Your task to perform on an android device: move an email to a new category in the gmail app Image 0: 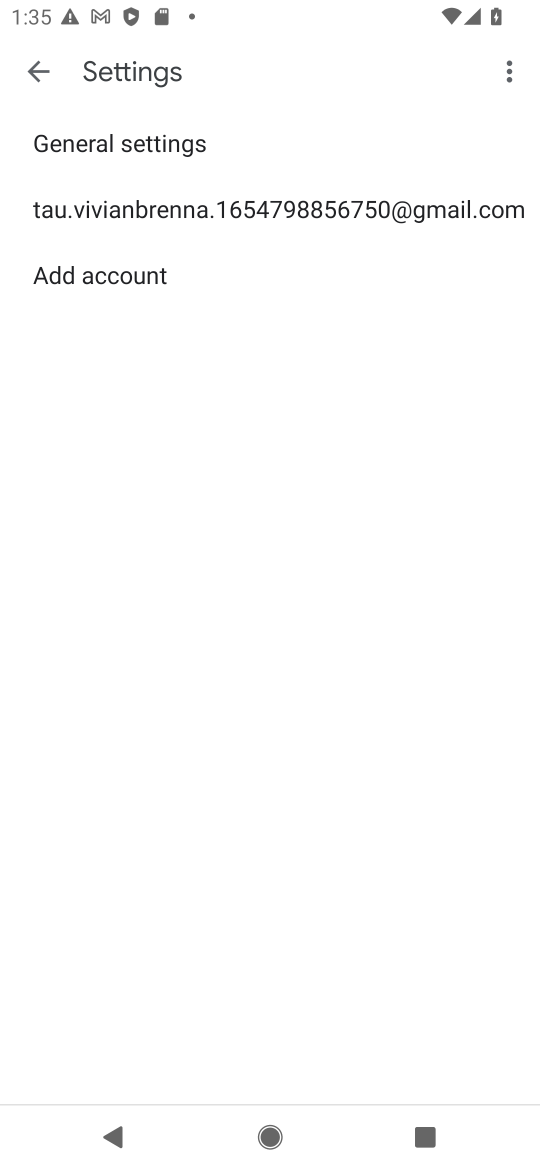
Step 0: press home button
Your task to perform on an android device: move an email to a new category in the gmail app Image 1: 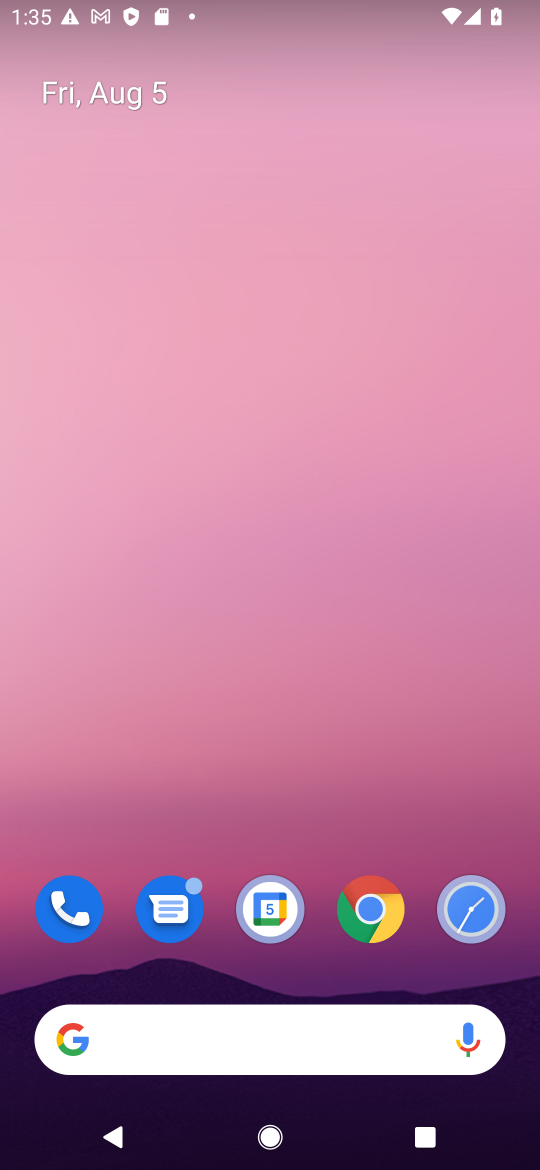
Step 1: drag from (287, 791) to (234, 32)
Your task to perform on an android device: move an email to a new category in the gmail app Image 2: 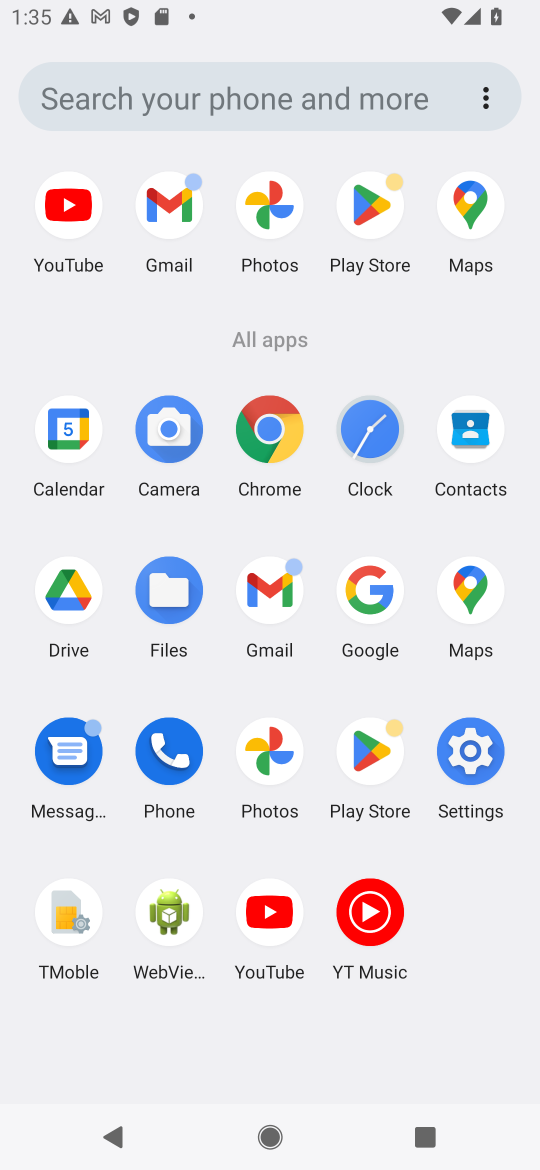
Step 2: click (180, 208)
Your task to perform on an android device: move an email to a new category in the gmail app Image 3: 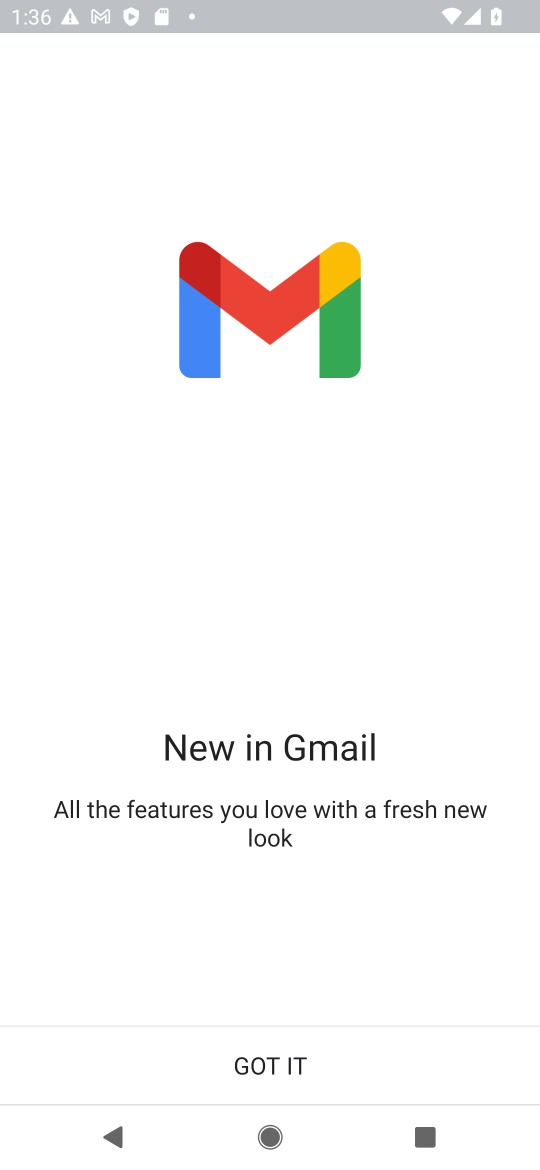
Step 3: click (268, 1052)
Your task to perform on an android device: move an email to a new category in the gmail app Image 4: 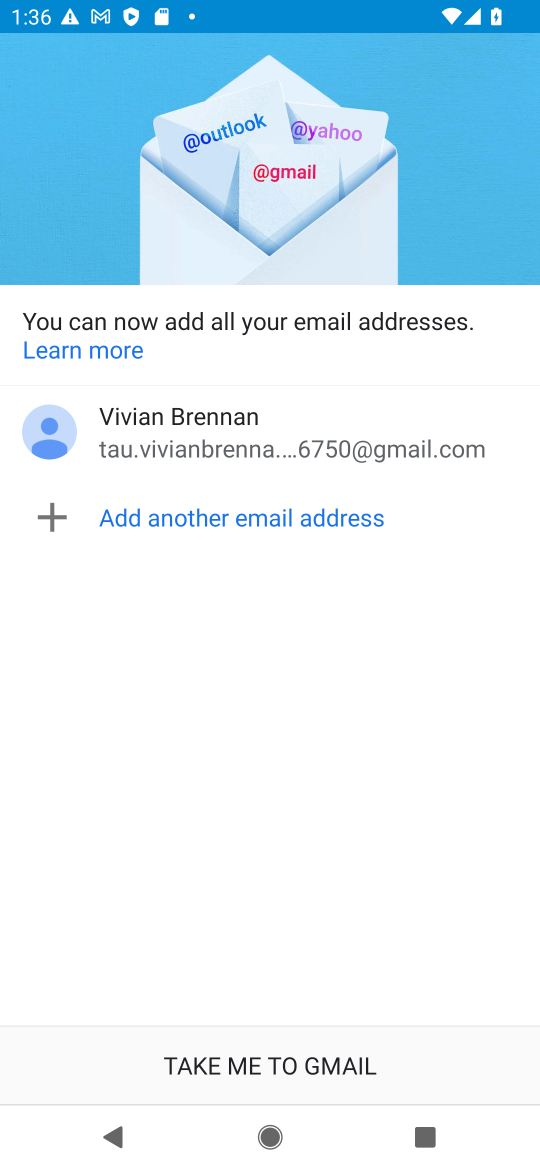
Step 4: click (268, 1052)
Your task to perform on an android device: move an email to a new category in the gmail app Image 5: 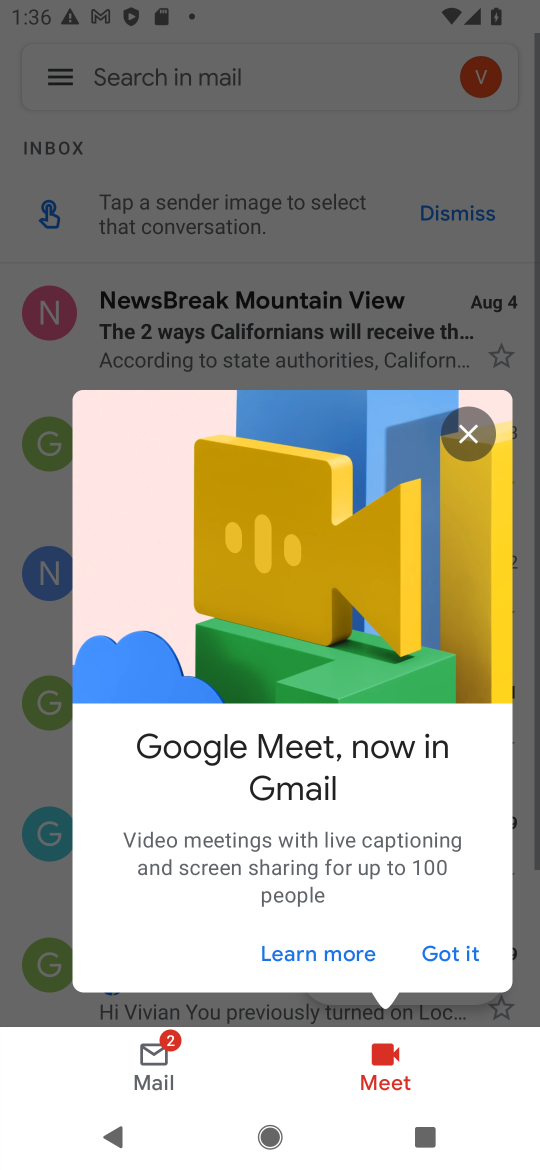
Step 5: click (467, 430)
Your task to perform on an android device: move an email to a new category in the gmail app Image 6: 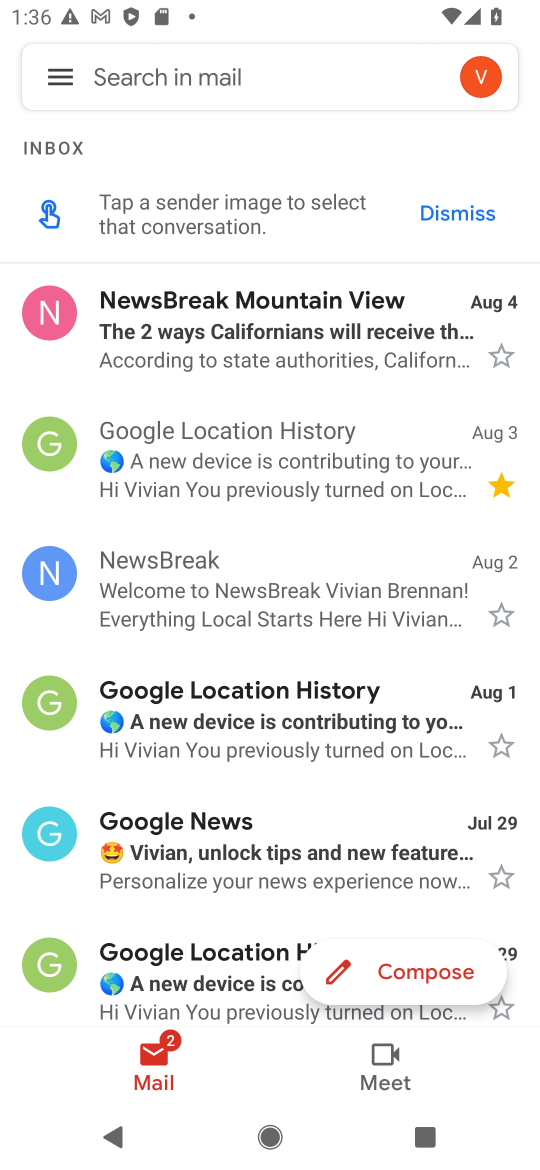
Step 6: click (341, 307)
Your task to perform on an android device: move an email to a new category in the gmail app Image 7: 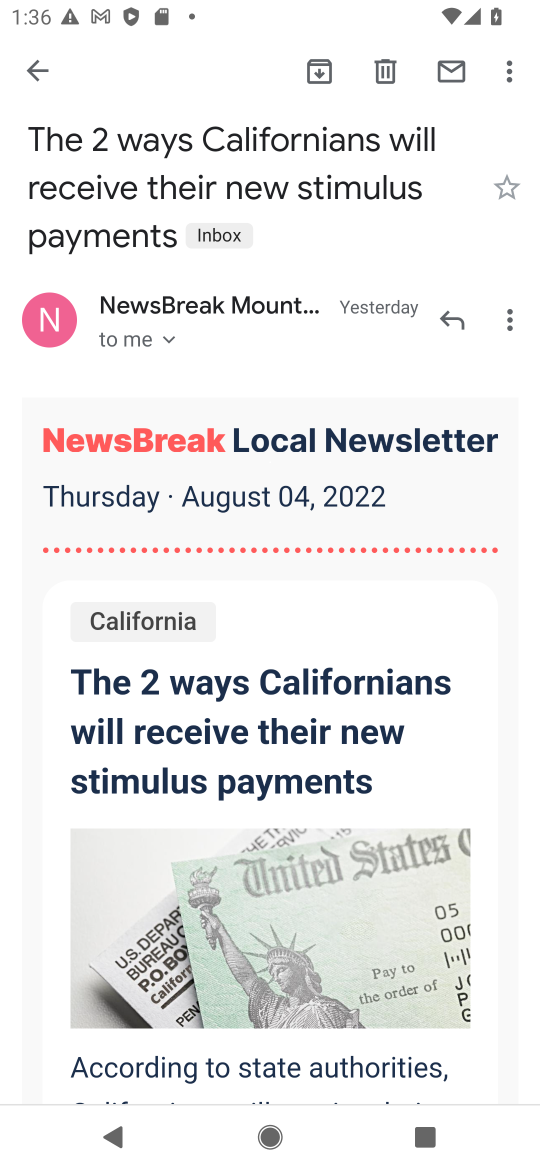
Step 7: click (503, 67)
Your task to perform on an android device: move an email to a new category in the gmail app Image 8: 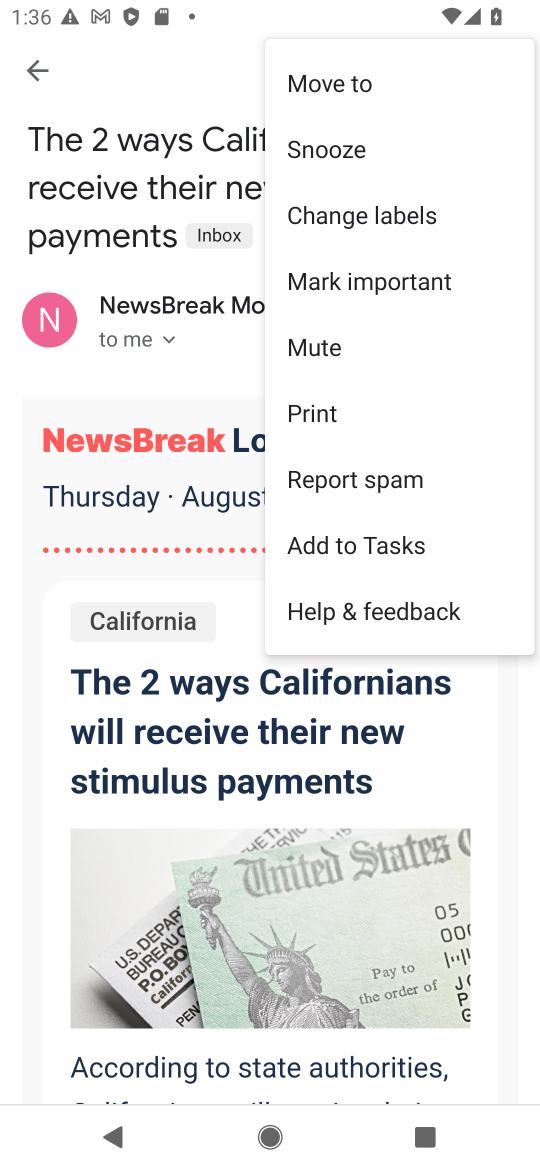
Step 8: click (350, 77)
Your task to perform on an android device: move an email to a new category in the gmail app Image 9: 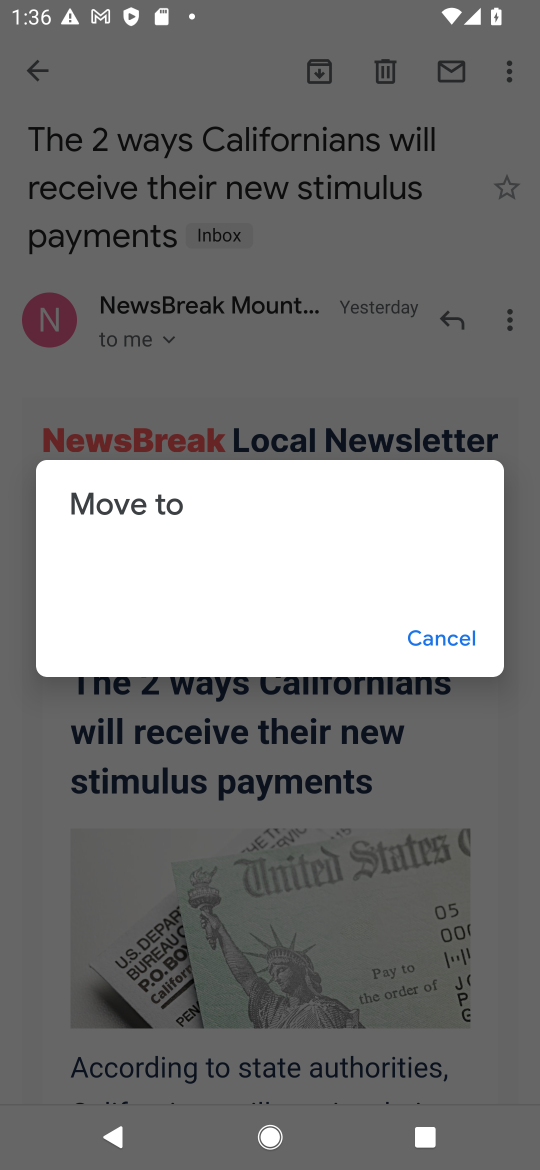
Step 9: click (196, 572)
Your task to perform on an android device: move an email to a new category in the gmail app Image 10: 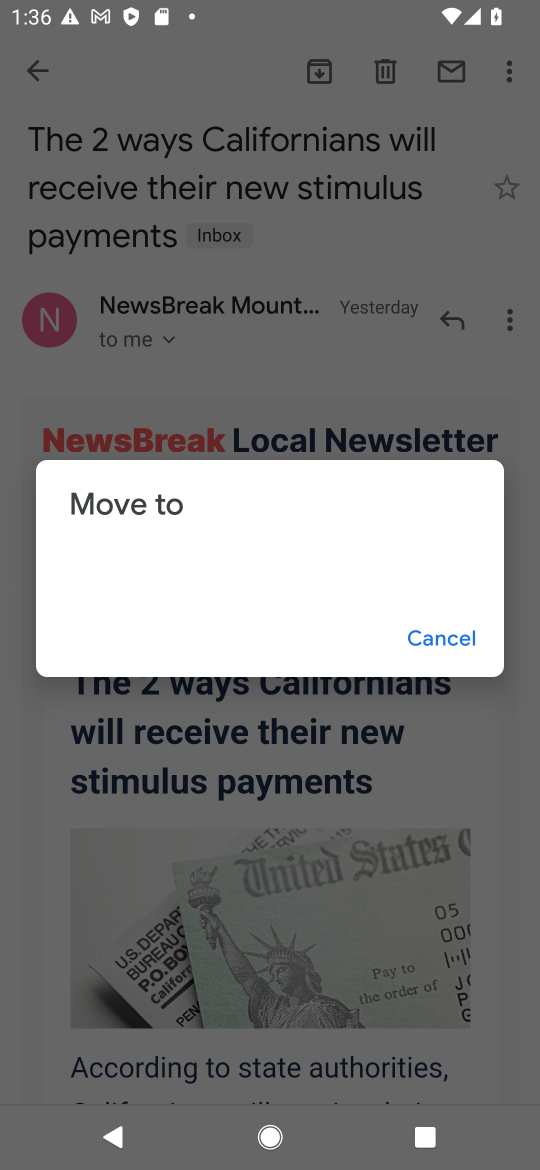
Step 10: click (421, 635)
Your task to perform on an android device: move an email to a new category in the gmail app Image 11: 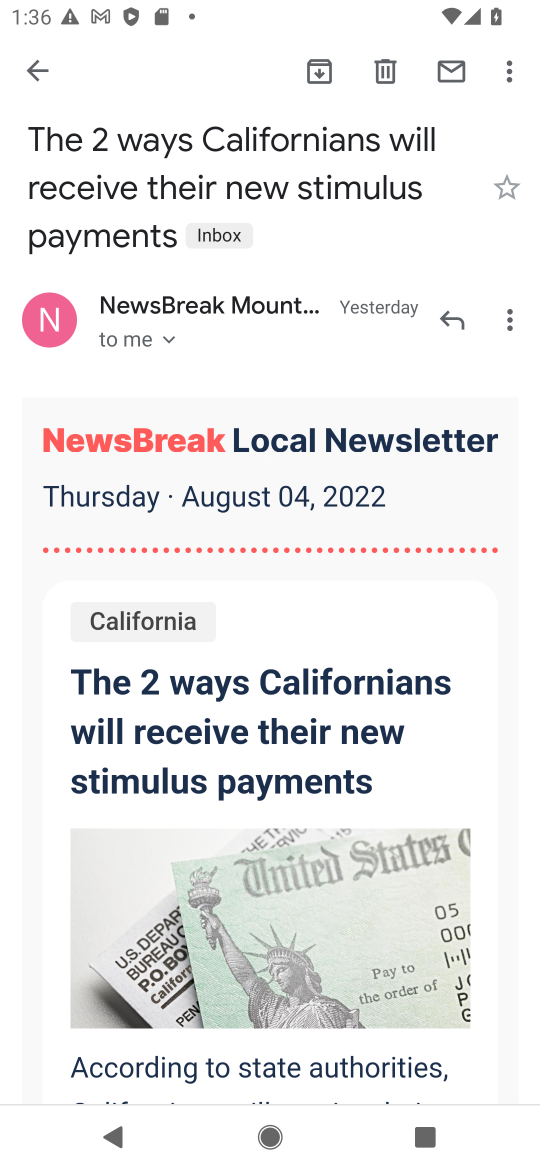
Step 11: click (505, 322)
Your task to perform on an android device: move an email to a new category in the gmail app Image 12: 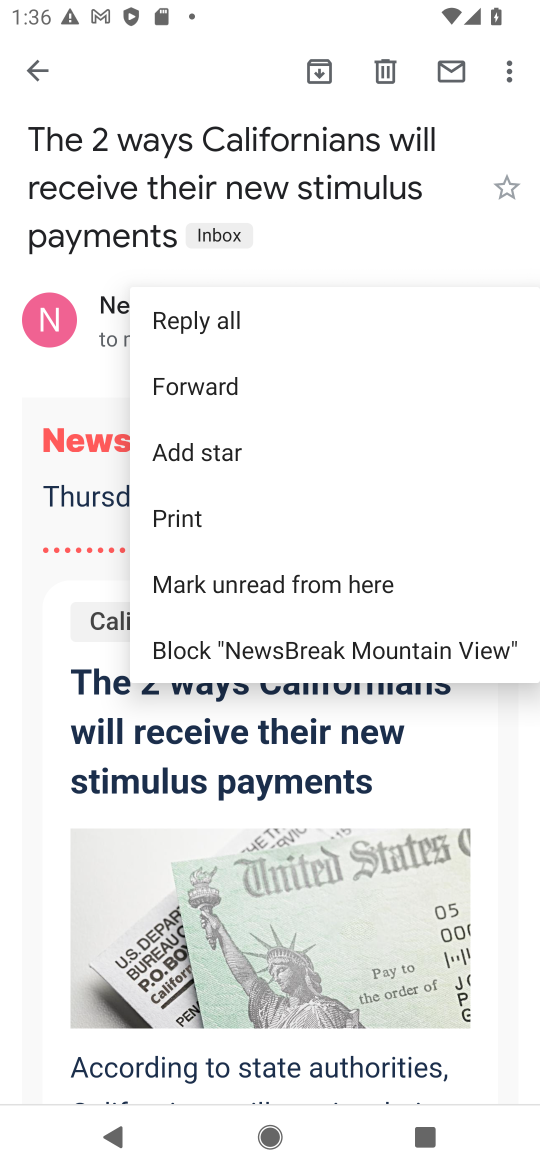
Step 12: click (505, 51)
Your task to perform on an android device: move an email to a new category in the gmail app Image 13: 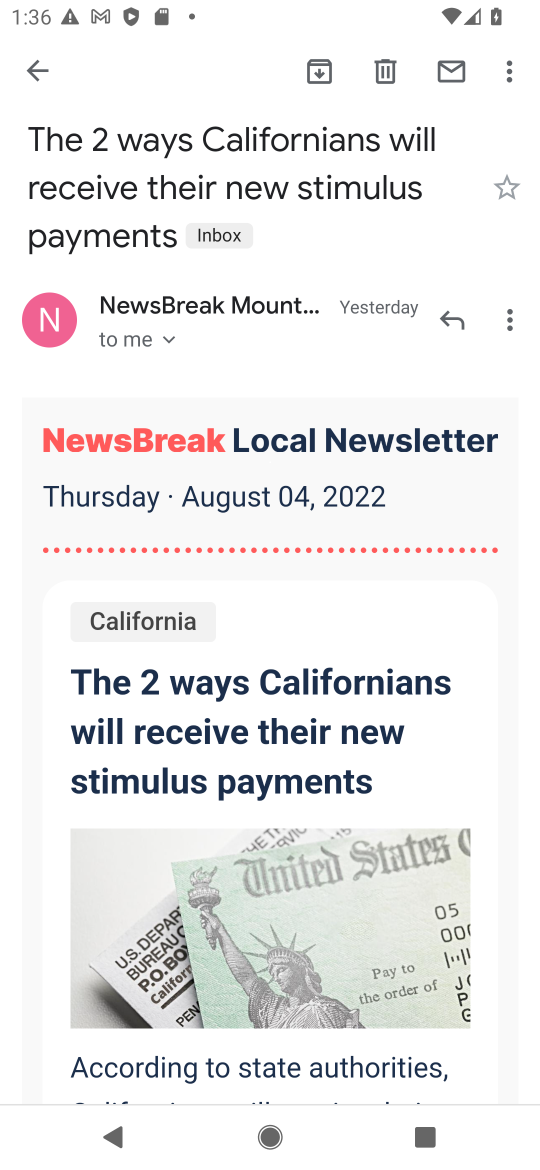
Step 13: click (509, 73)
Your task to perform on an android device: move an email to a new category in the gmail app Image 14: 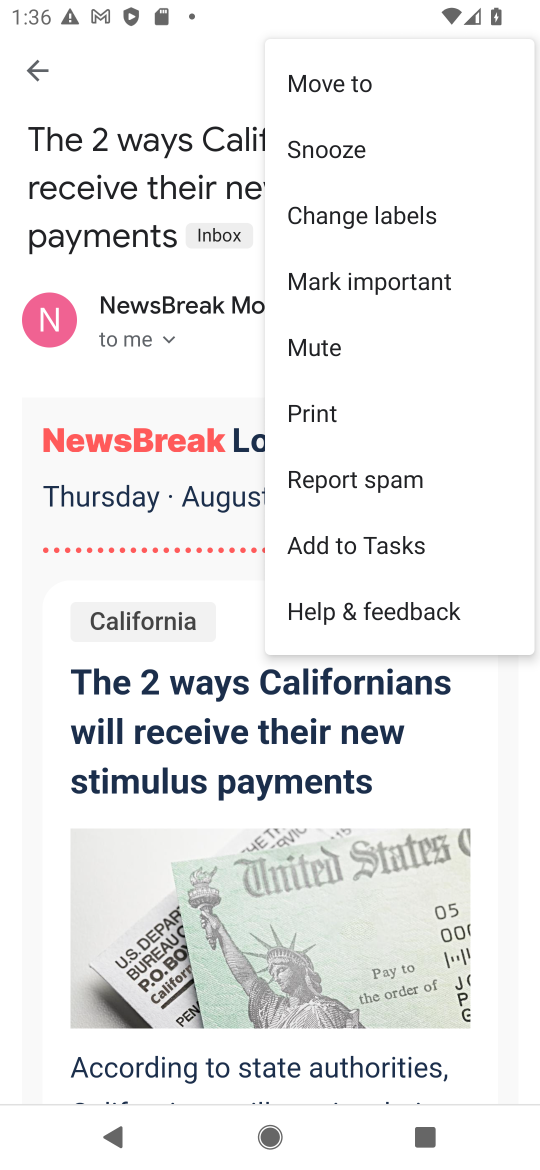
Step 14: click (337, 97)
Your task to perform on an android device: move an email to a new category in the gmail app Image 15: 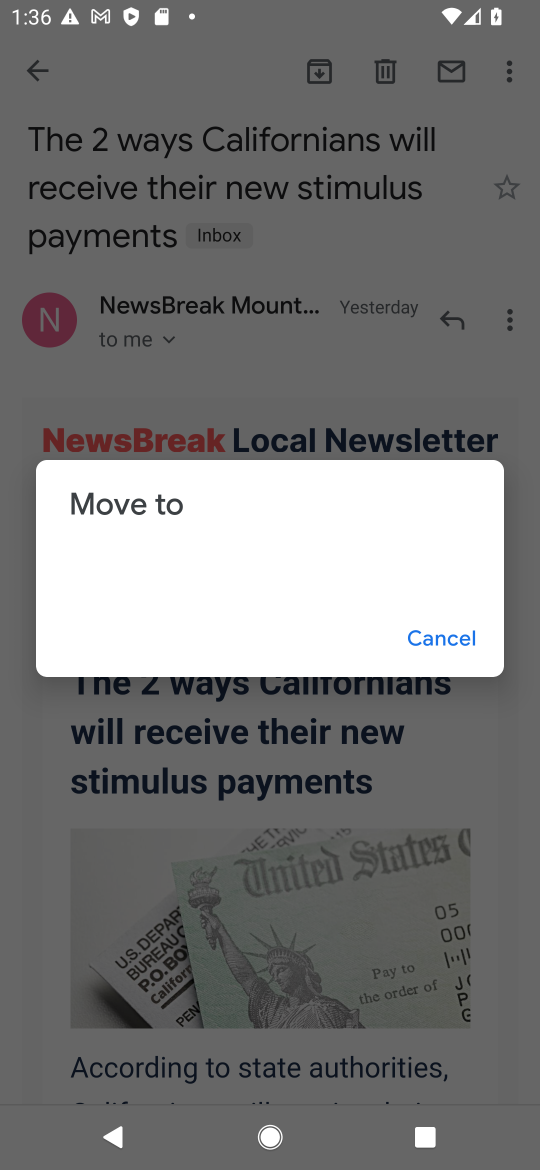
Step 15: click (96, 546)
Your task to perform on an android device: move an email to a new category in the gmail app Image 16: 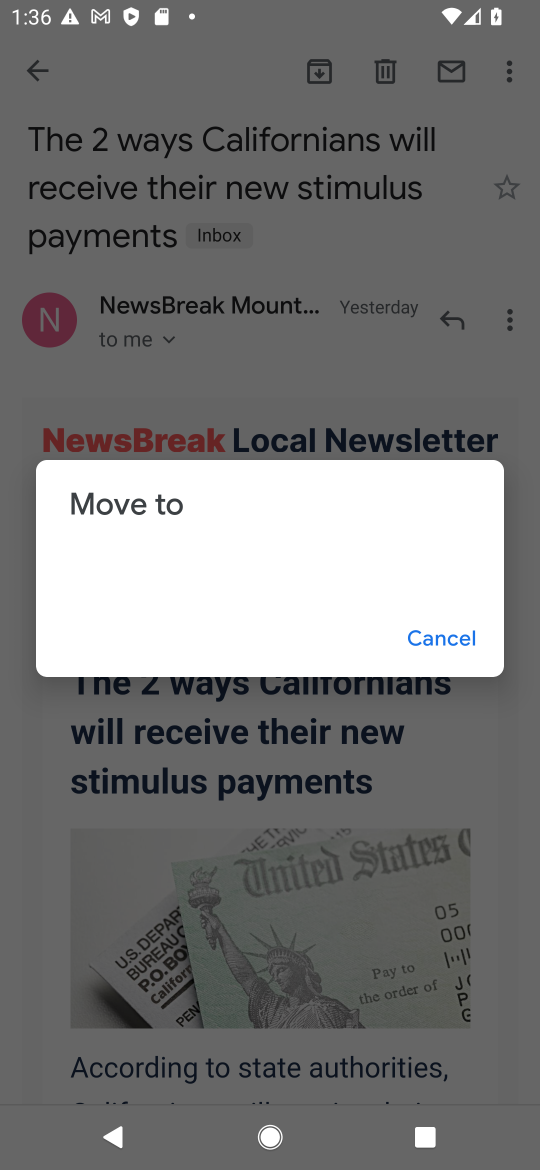
Step 16: click (151, 571)
Your task to perform on an android device: move an email to a new category in the gmail app Image 17: 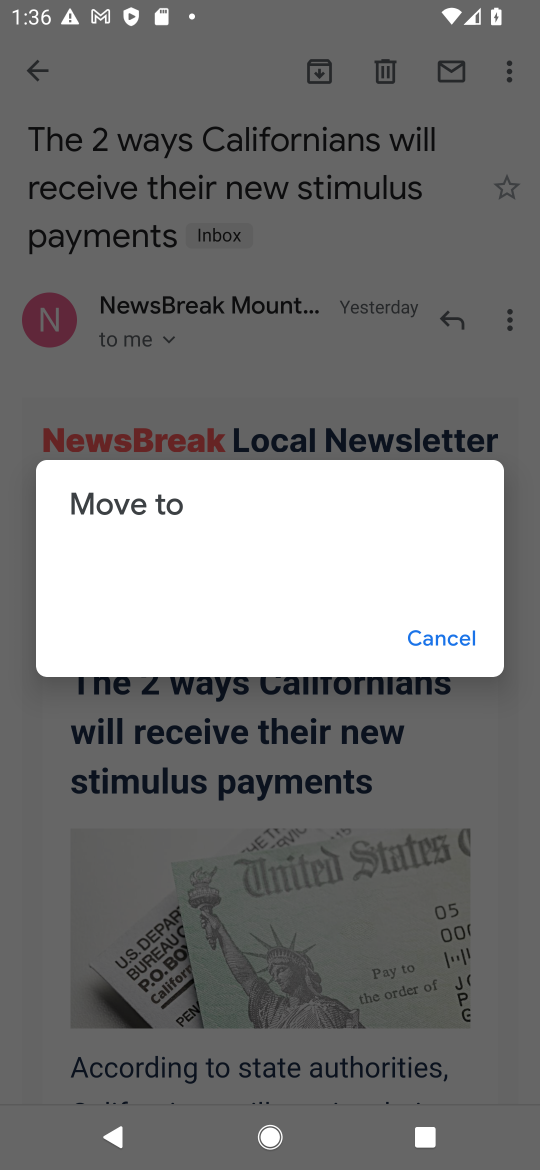
Step 17: click (450, 636)
Your task to perform on an android device: move an email to a new category in the gmail app Image 18: 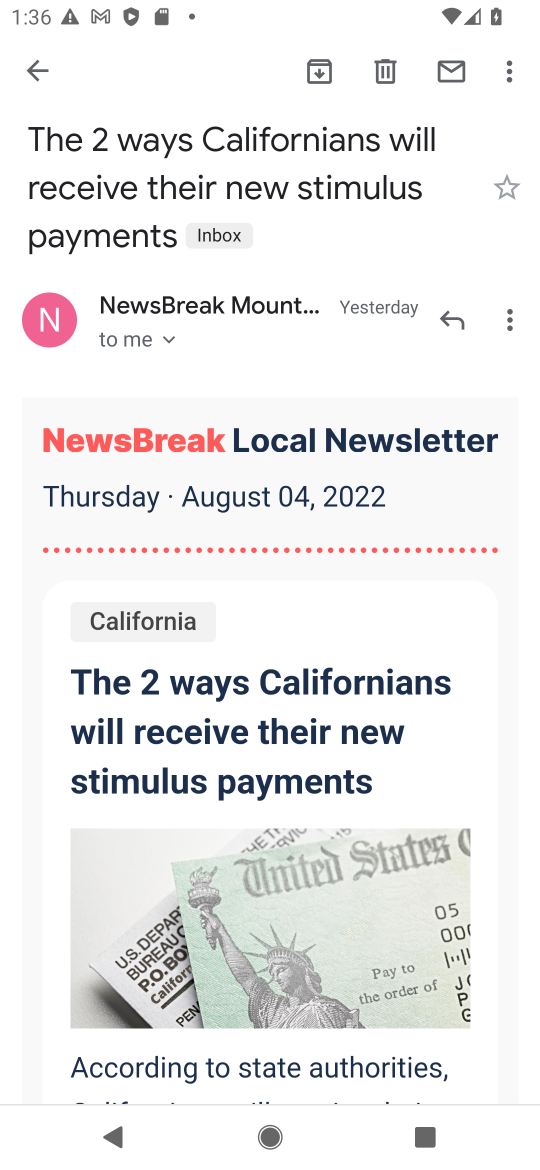
Step 18: task complete